Your task to perform on an android device: What's the weather today? Image 0: 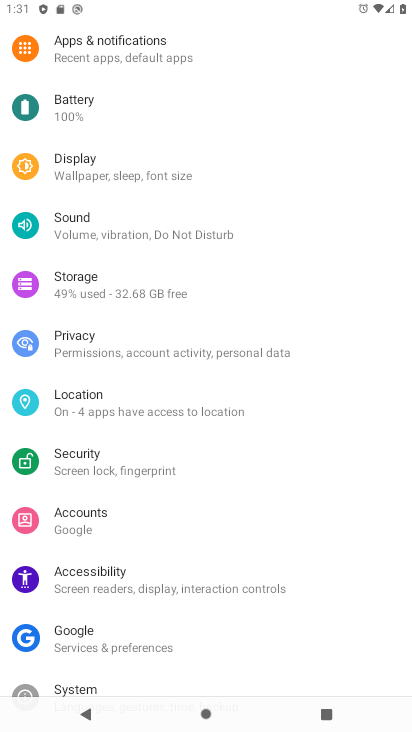
Step 0: press home button
Your task to perform on an android device: What's the weather today? Image 1: 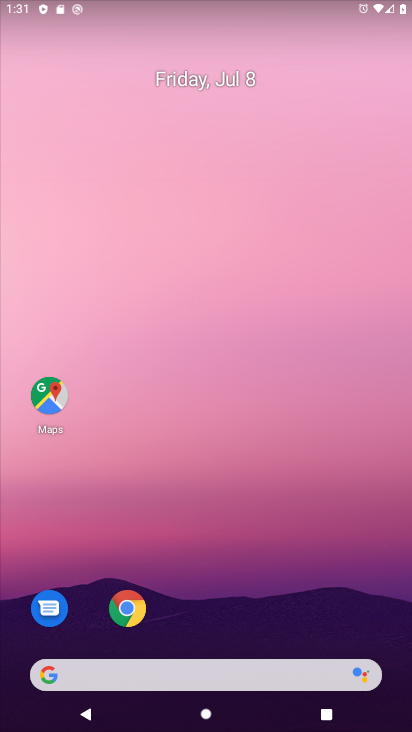
Step 1: click (173, 674)
Your task to perform on an android device: What's the weather today? Image 2: 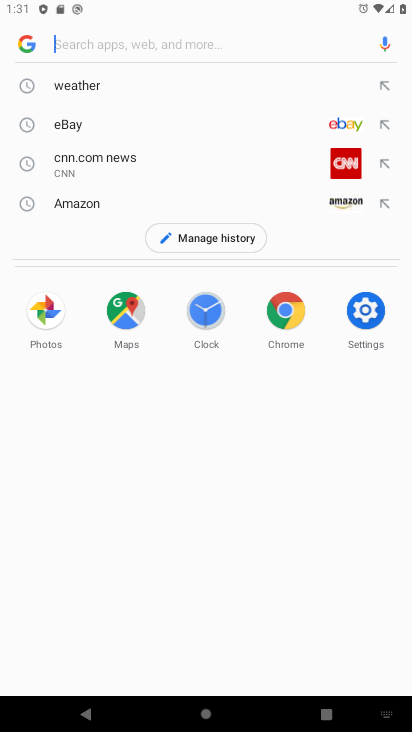
Step 2: click (106, 92)
Your task to perform on an android device: What's the weather today? Image 3: 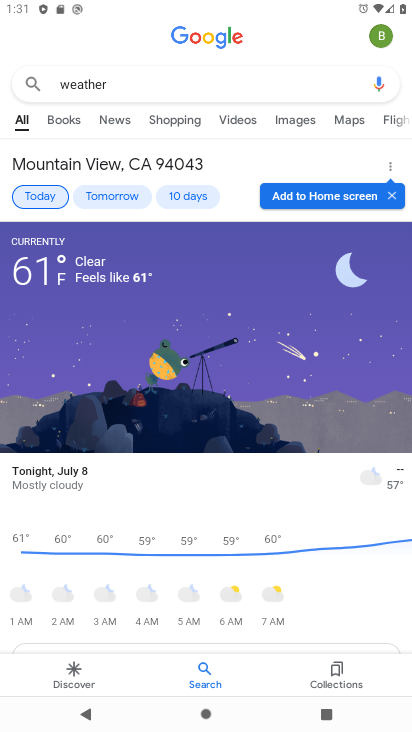
Step 3: task complete